Your task to perform on an android device: check storage Image 0: 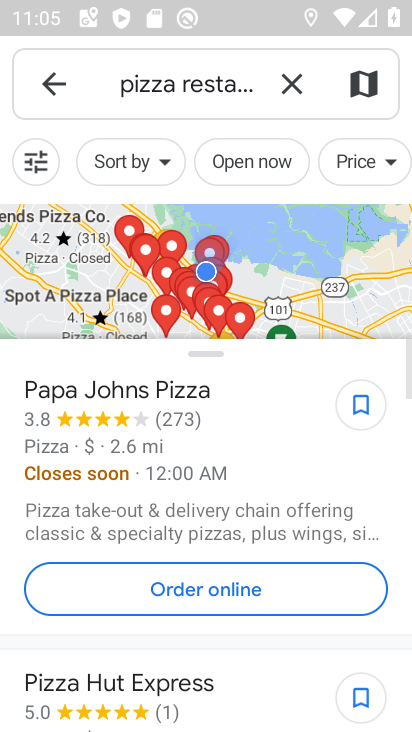
Step 0: press home button
Your task to perform on an android device: check storage Image 1: 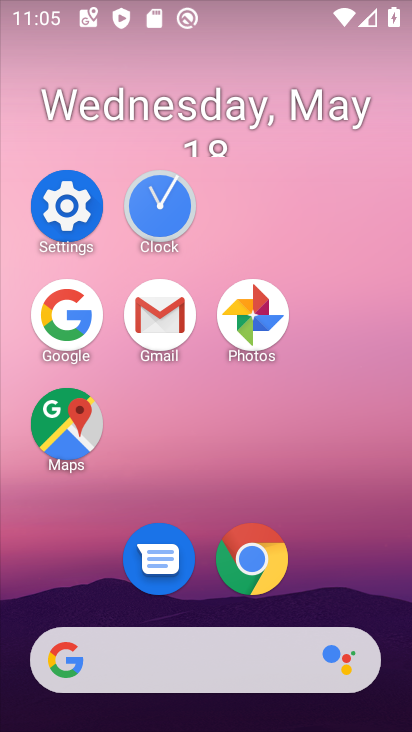
Step 1: click (35, 208)
Your task to perform on an android device: check storage Image 2: 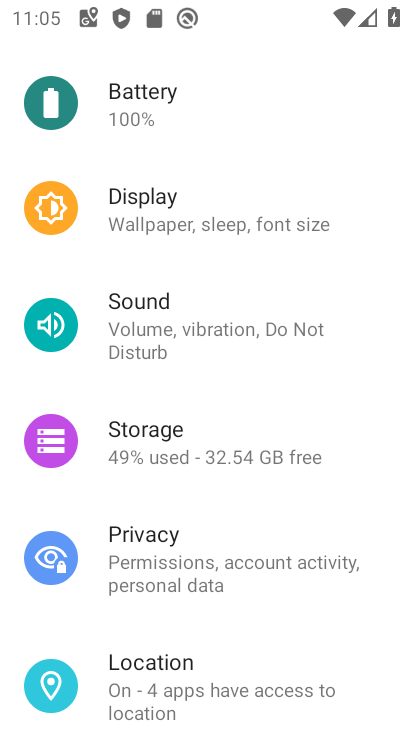
Step 2: click (169, 445)
Your task to perform on an android device: check storage Image 3: 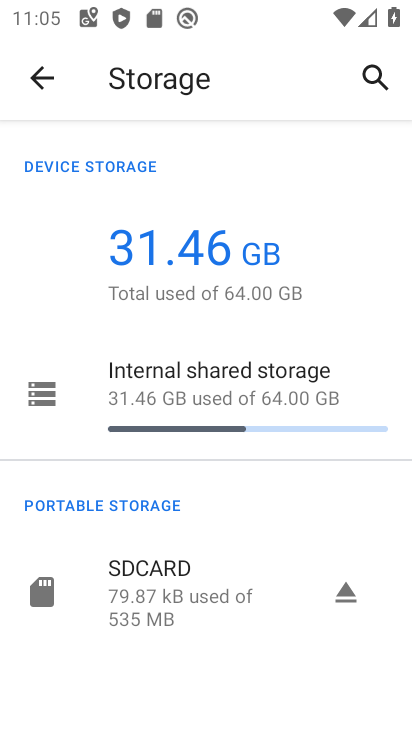
Step 3: task complete